Your task to perform on an android device: Turn on the flashlight Image 0: 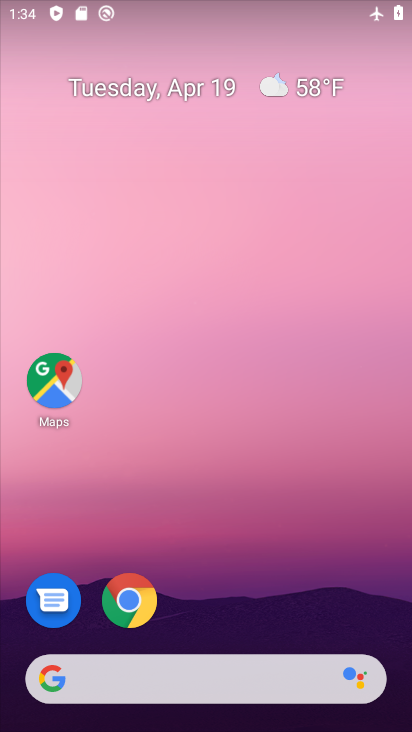
Step 0: drag from (133, 8) to (142, 617)
Your task to perform on an android device: Turn on the flashlight Image 1: 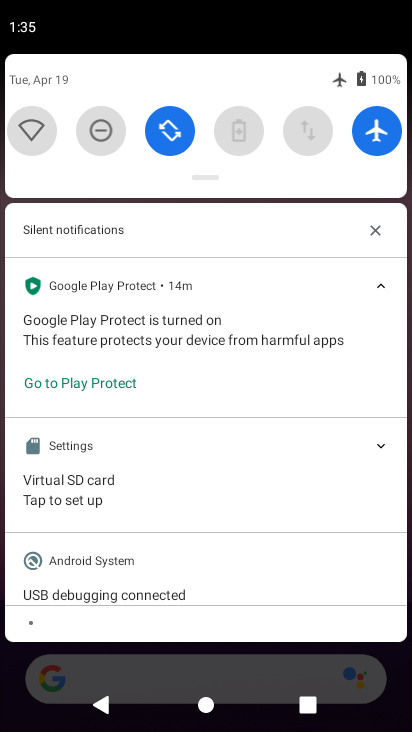
Step 1: task complete